Your task to perform on an android device: toggle improve location accuracy Image 0: 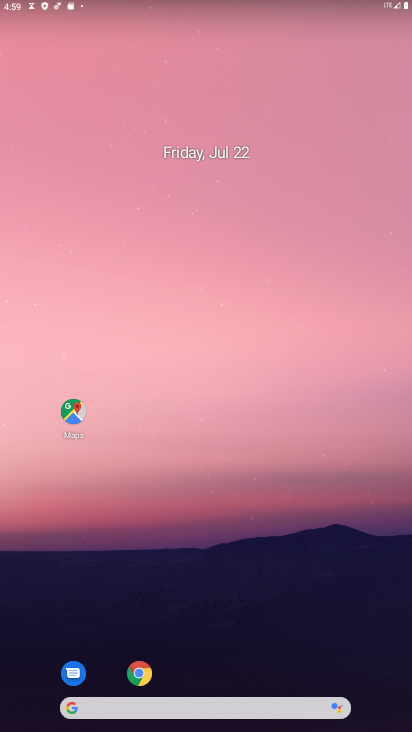
Step 0: press home button
Your task to perform on an android device: toggle improve location accuracy Image 1: 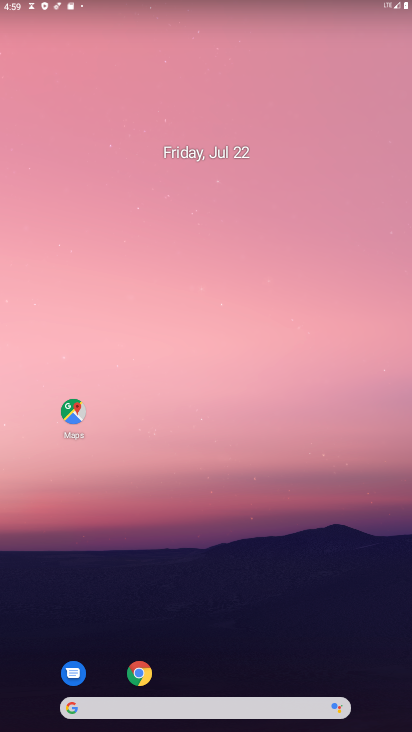
Step 1: drag from (284, 679) to (22, 113)
Your task to perform on an android device: toggle improve location accuracy Image 2: 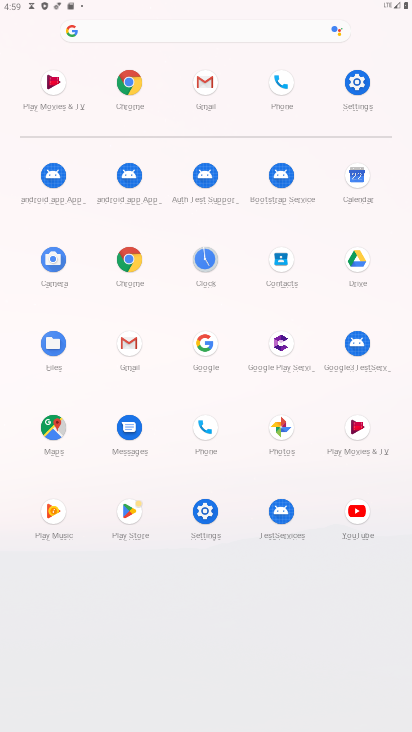
Step 2: click (364, 84)
Your task to perform on an android device: toggle improve location accuracy Image 3: 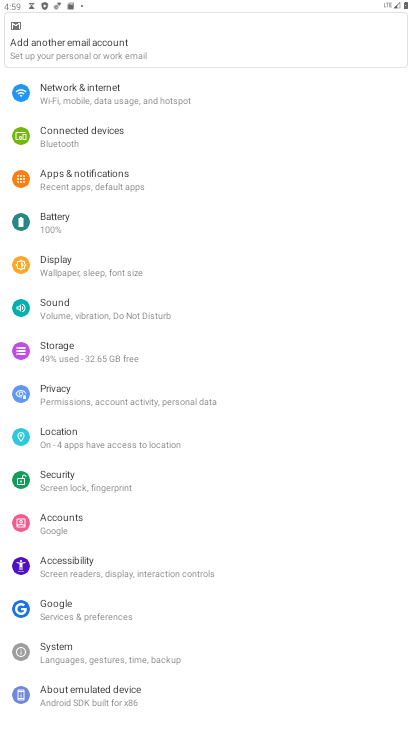
Step 3: click (58, 435)
Your task to perform on an android device: toggle improve location accuracy Image 4: 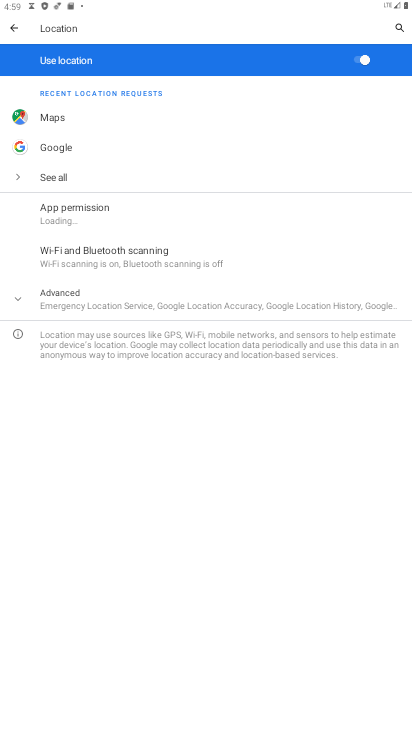
Step 4: click (73, 301)
Your task to perform on an android device: toggle improve location accuracy Image 5: 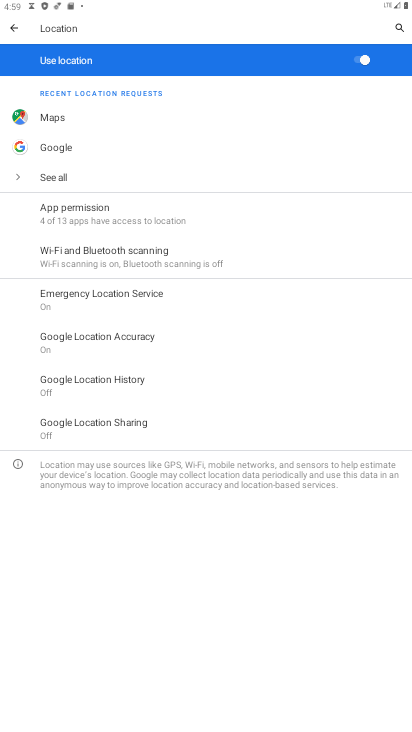
Step 5: click (88, 339)
Your task to perform on an android device: toggle improve location accuracy Image 6: 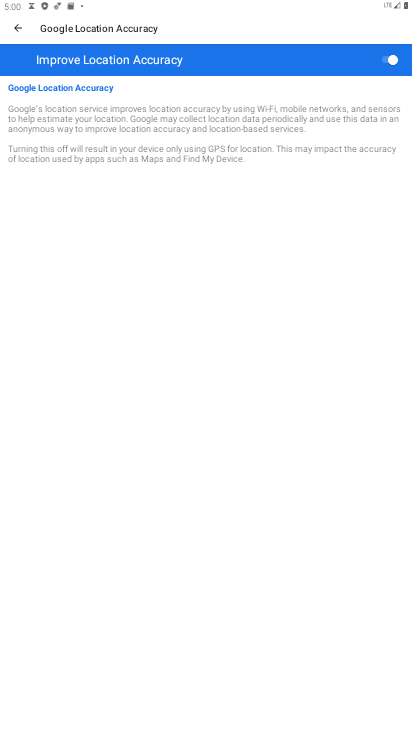
Step 6: click (396, 62)
Your task to perform on an android device: toggle improve location accuracy Image 7: 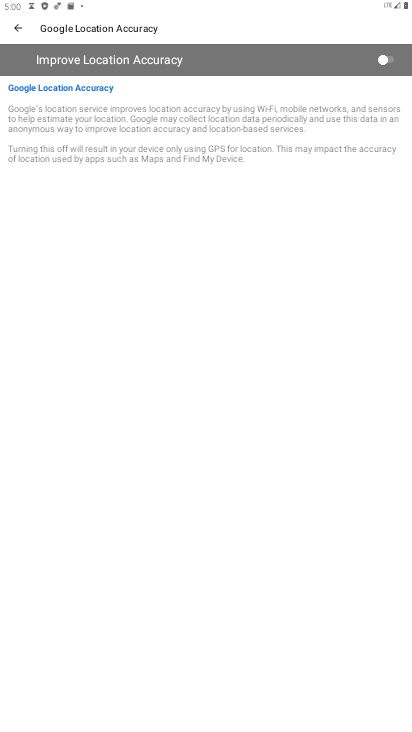
Step 7: task complete